Your task to perform on an android device: Open CNN.com Image 0: 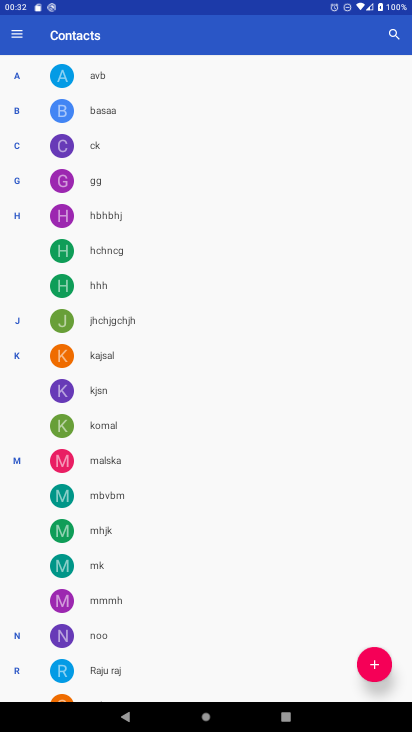
Step 0: press home button
Your task to perform on an android device: Open CNN.com Image 1: 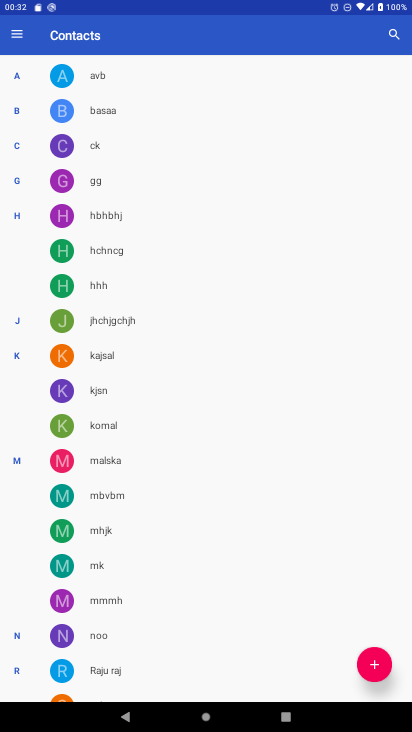
Step 1: press home button
Your task to perform on an android device: Open CNN.com Image 2: 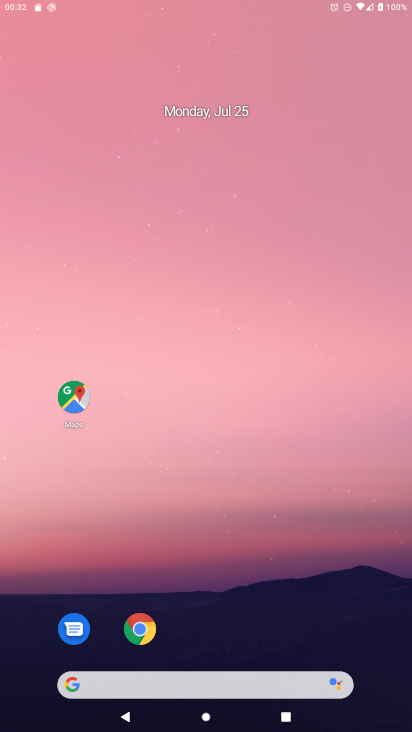
Step 2: drag from (167, 431) to (238, 100)
Your task to perform on an android device: Open CNN.com Image 3: 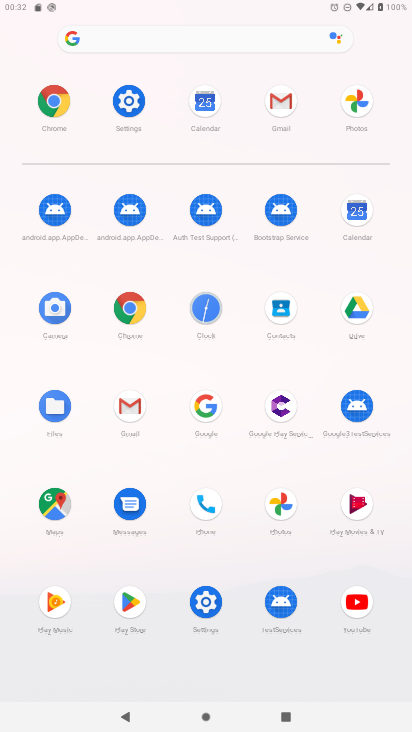
Step 3: click (129, 38)
Your task to perform on an android device: Open CNN.com Image 4: 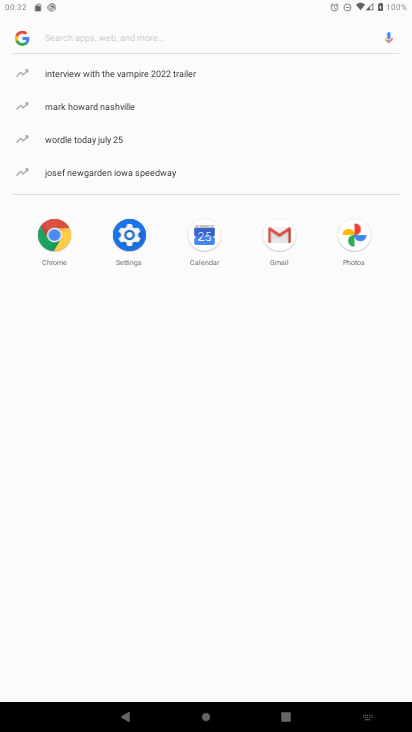
Step 4: click (85, 39)
Your task to perform on an android device: Open CNN.com Image 5: 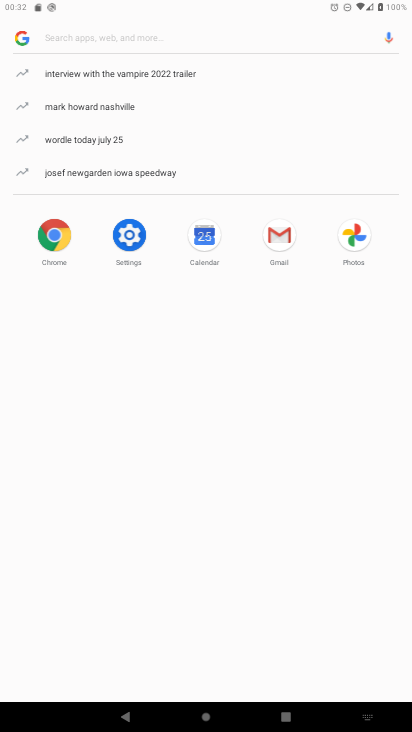
Step 5: type "CNN.com"
Your task to perform on an android device: Open CNN.com Image 6: 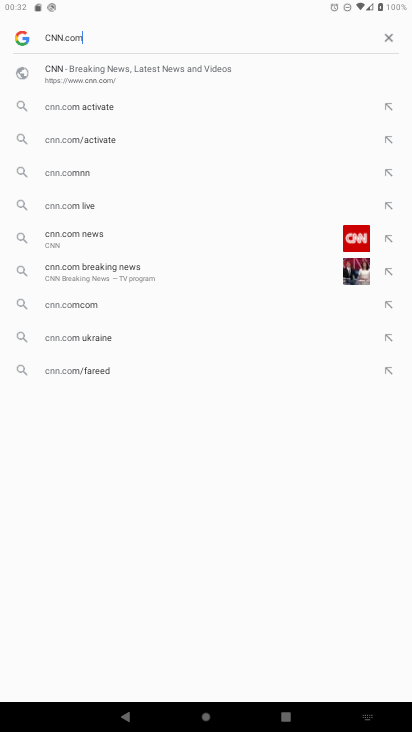
Step 6: type ""
Your task to perform on an android device: Open CNN.com Image 7: 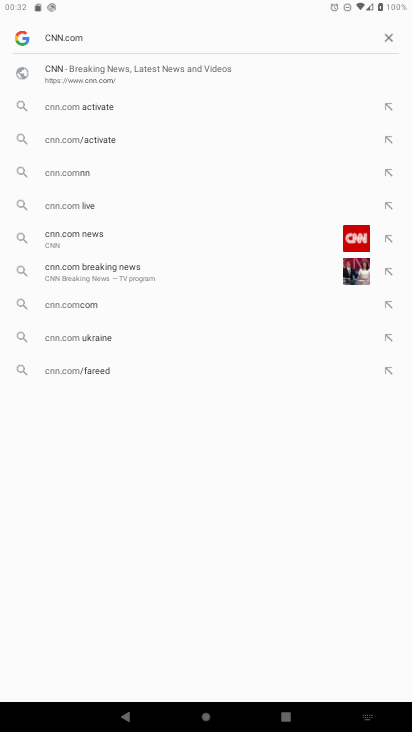
Step 7: click (46, 72)
Your task to perform on an android device: Open CNN.com Image 8: 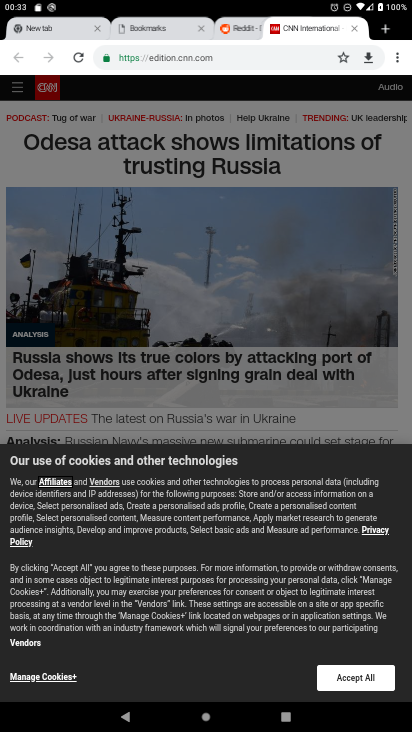
Step 8: click (213, 310)
Your task to perform on an android device: Open CNN.com Image 9: 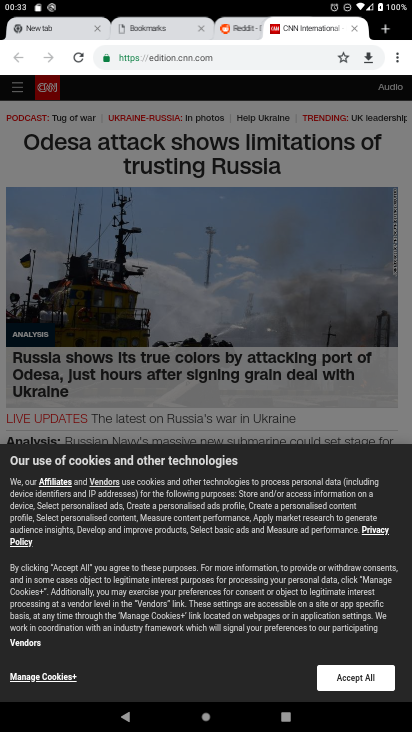
Step 9: task complete